Your task to perform on an android device: visit the assistant section in the google photos Image 0: 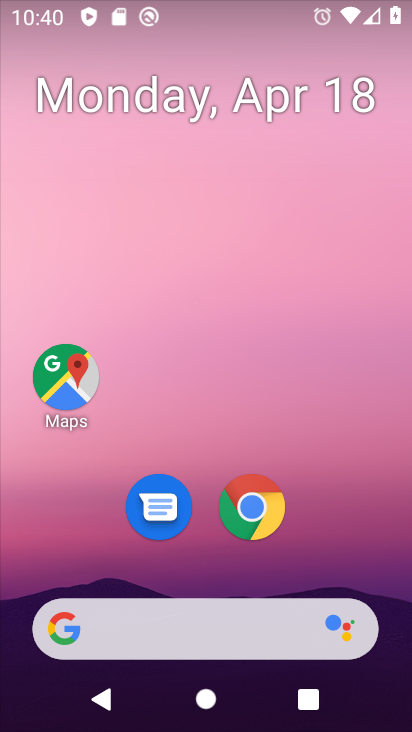
Step 0: drag from (280, 669) to (412, 199)
Your task to perform on an android device: visit the assistant section in the google photos Image 1: 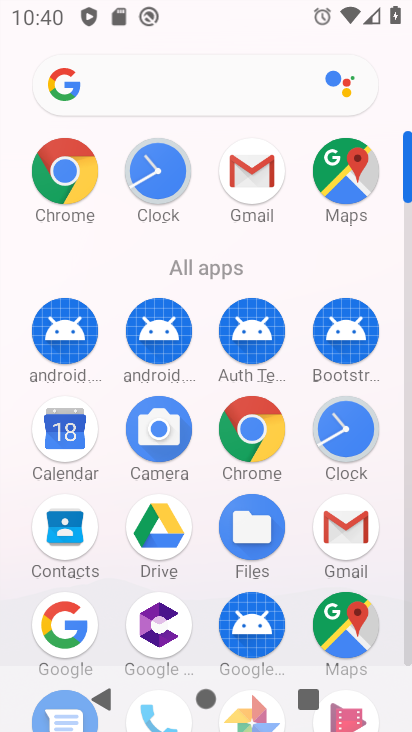
Step 1: drag from (205, 572) to (213, 454)
Your task to perform on an android device: visit the assistant section in the google photos Image 2: 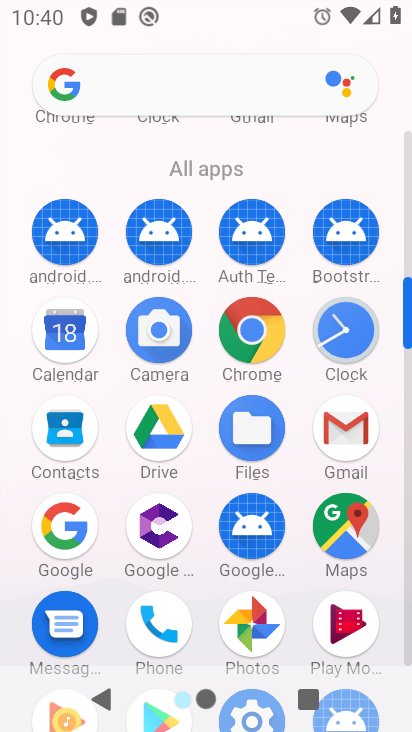
Step 2: click (258, 622)
Your task to perform on an android device: visit the assistant section in the google photos Image 3: 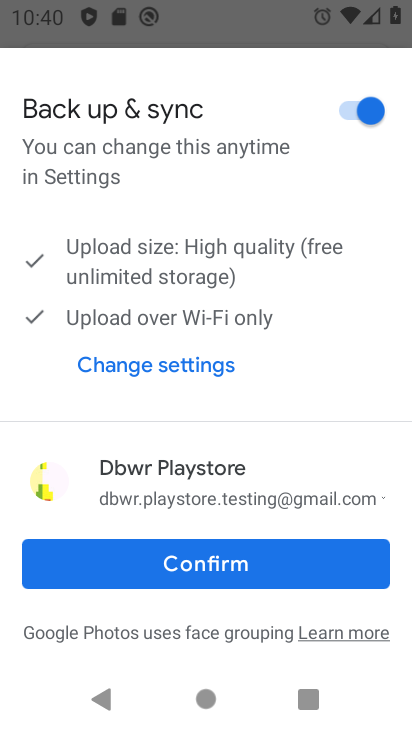
Step 3: click (184, 570)
Your task to perform on an android device: visit the assistant section in the google photos Image 4: 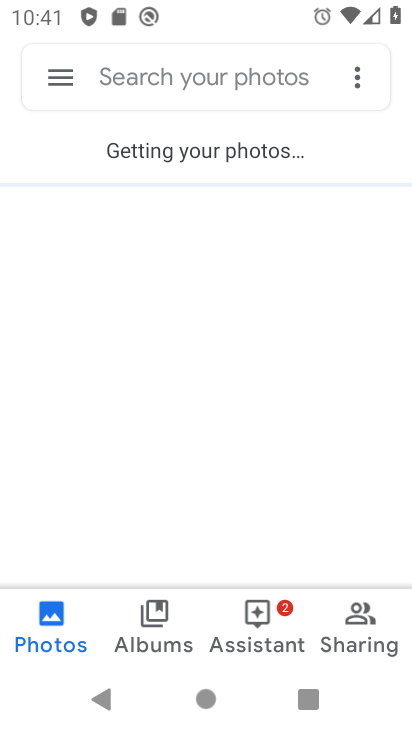
Step 4: click (251, 629)
Your task to perform on an android device: visit the assistant section in the google photos Image 5: 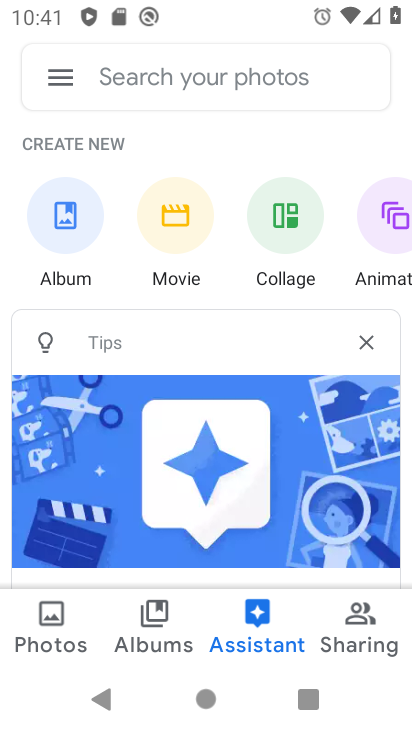
Step 5: task complete